Your task to perform on an android device: snooze an email in the gmail app Image 0: 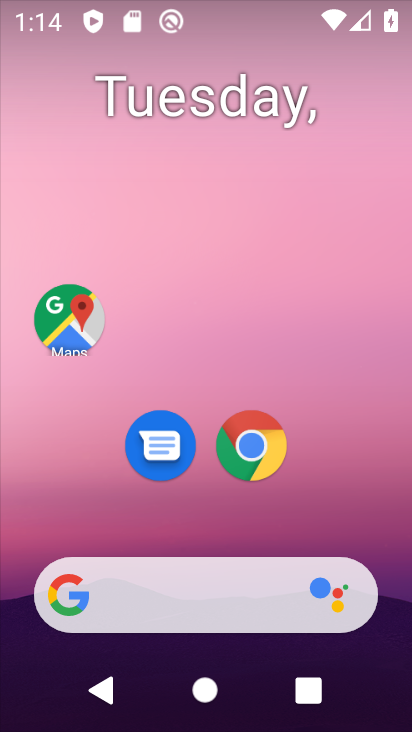
Step 0: press home button
Your task to perform on an android device: snooze an email in the gmail app Image 1: 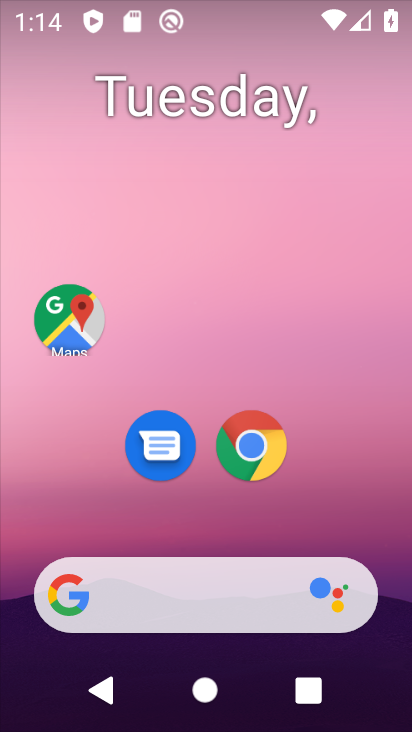
Step 1: drag from (201, 522) to (198, 24)
Your task to perform on an android device: snooze an email in the gmail app Image 2: 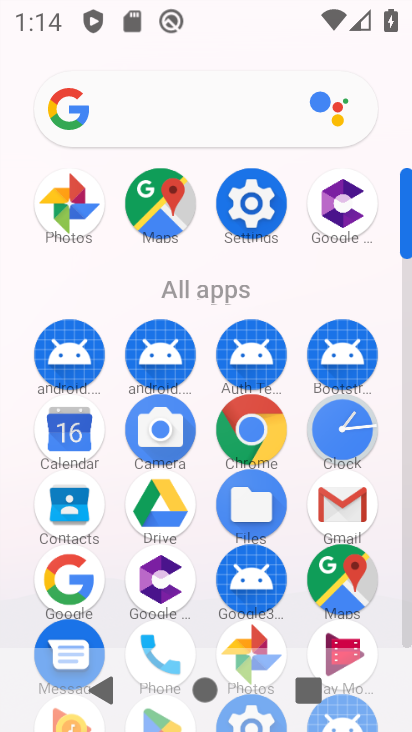
Step 2: click (344, 496)
Your task to perform on an android device: snooze an email in the gmail app Image 3: 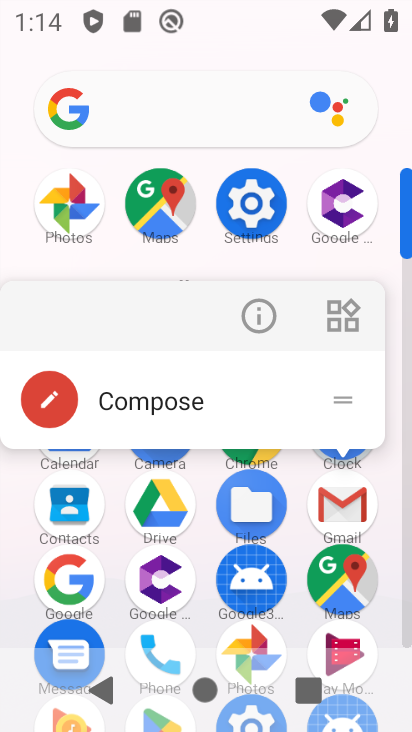
Step 3: click (340, 495)
Your task to perform on an android device: snooze an email in the gmail app Image 4: 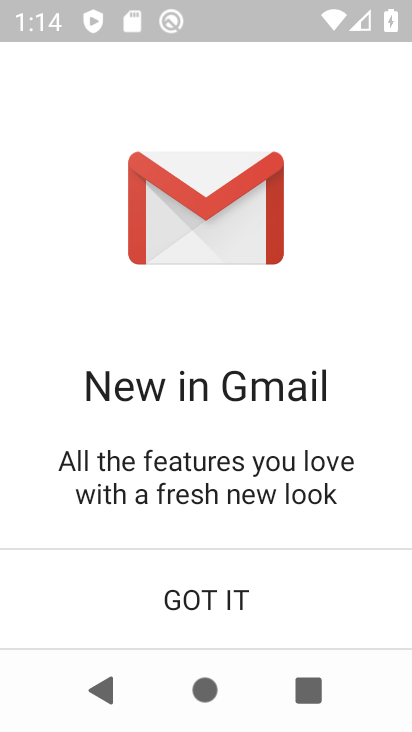
Step 4: click (219, 617)
Your task to perform on an android device: snooze an email in the gmail app Image 5: 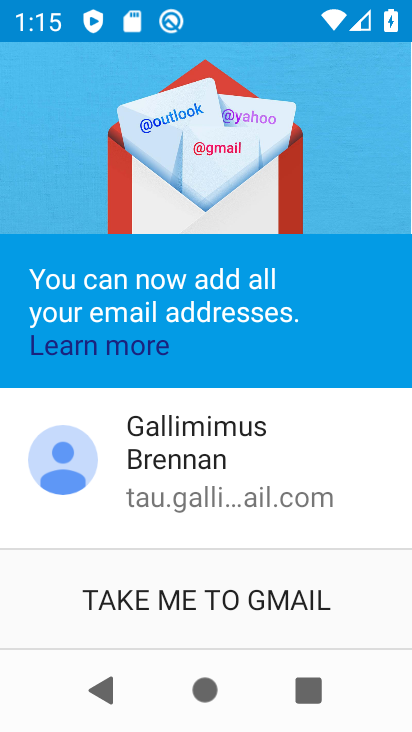
Step 5: click (203, 621)
Your task to perform on an android device: snooze an email in the gmail app Image 6: 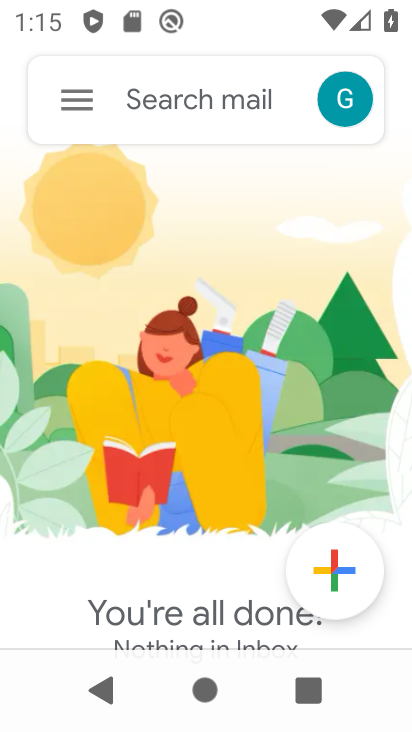
Step 6: press home button
Your task to perform on an android device: snooze an email in the gmail app Image 7: 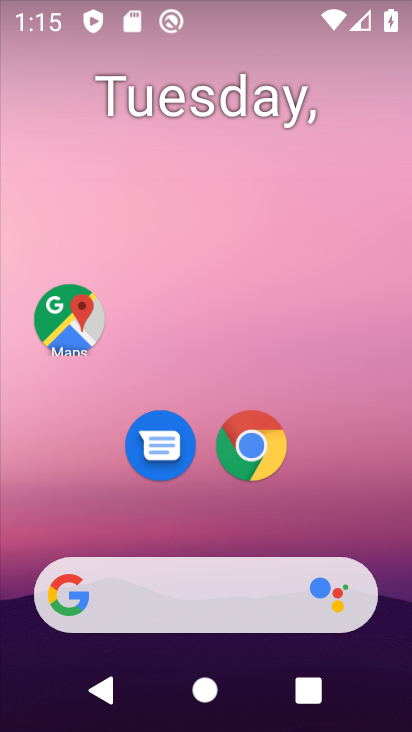
Step 7: drag from (221, 526) to (254, 6)
Your task to perform on an android device: snooze an email in the gmail app Image 8: 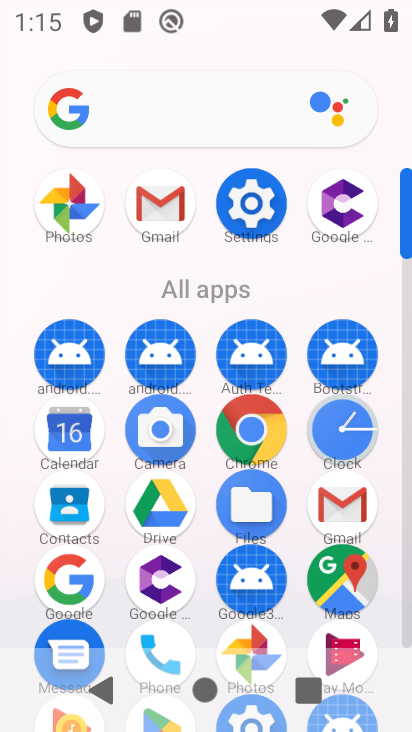
Step 8: click (153, 190)
Your task to perform on an android device: snooze an email in the gmail app Image 9: 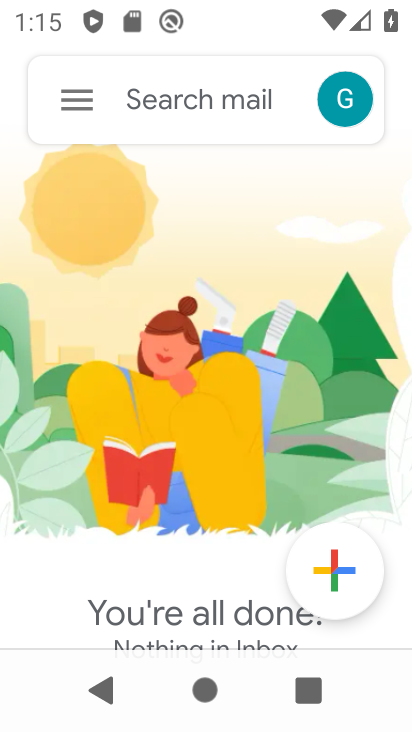
Step 9: task complete